Your task to perform on an android device: Play the last video I watched on Youtube Image 0: 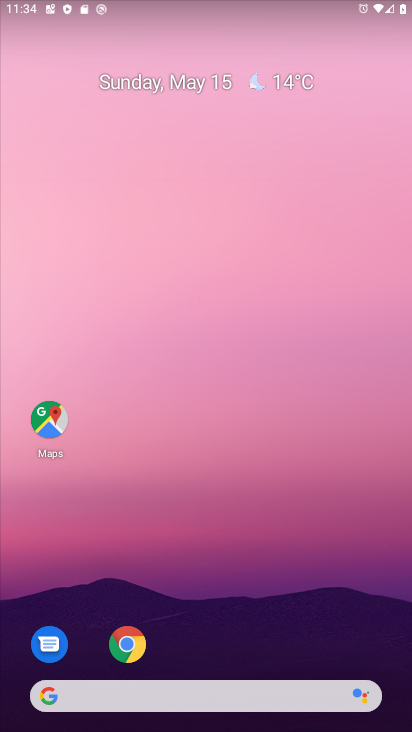
Step 0: drag from (240, 412) to (214, 75)
Your task to perform on an android device: Play the last video I watched on Youtube Image 1: 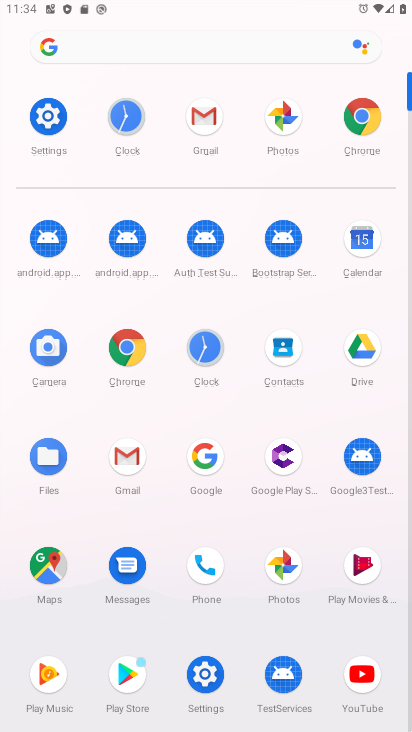
Step 1: drag from (240, 515) to (226, 201)
Your task to perform on an android device: Play the last video I watched on Youtube Image 2: 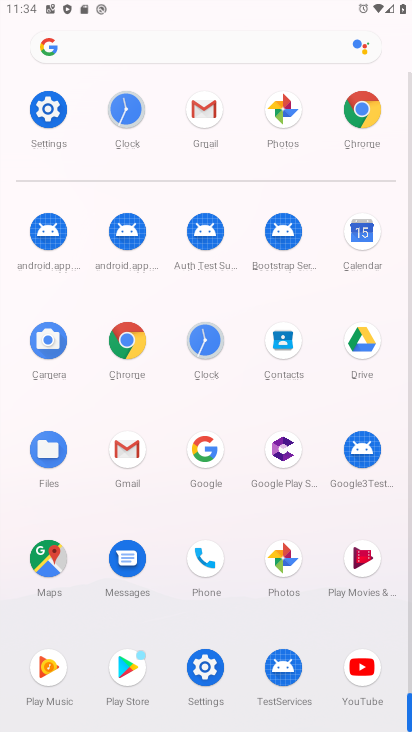
Step 2: click (356, 666)
Your task to perform on an android device: Play the last video I watched on Youtube Image 3: 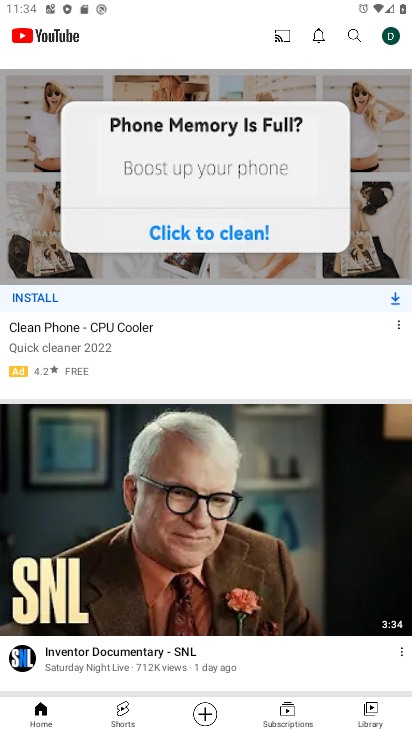
Step 3: click (370, 705)
Your task to perform on an android device: Play the last video I watched on Youtube Image 4: 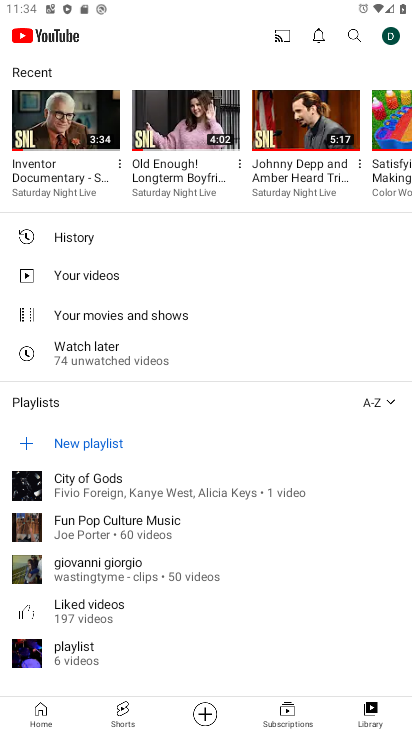
Step 4: click (77, 127)
Your task to perform on an android device: Play the last video I watched on Youtube Image 5: 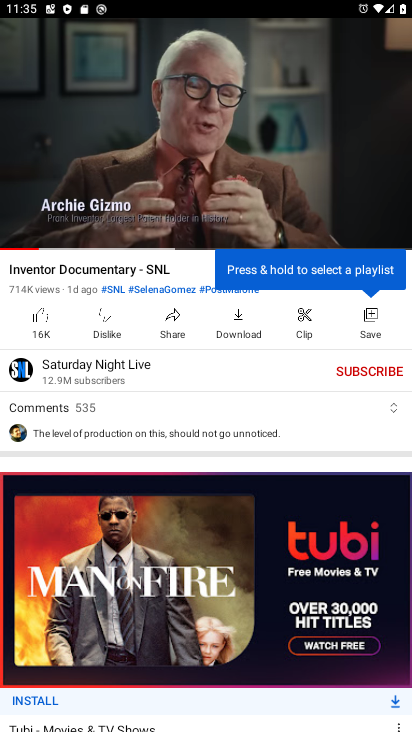
Step 5: click (208, 150)
Your task to perform on an android device: Play the last video I watched on Youtube Image 6: 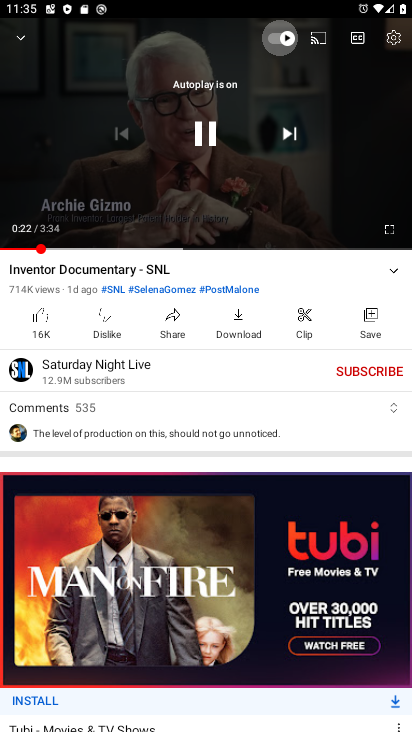
Step 6: click (208, 133)
Your task to perform on an android device: Play the last video I watched on Youtube Image 7: 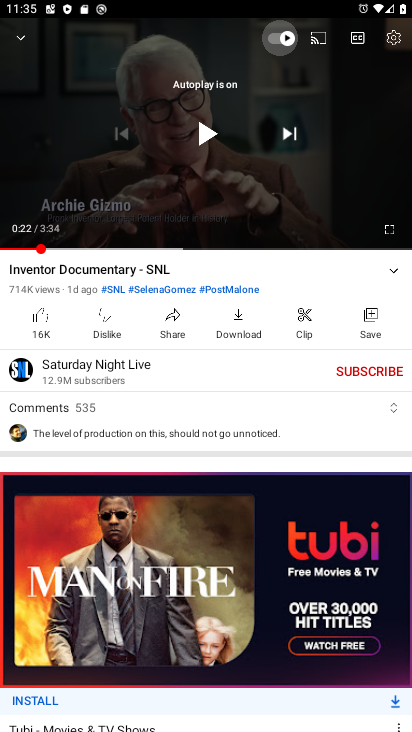
Step 7: task complete